Your task to perform on an android device: Play the last video I watched on Youtube Image 0: 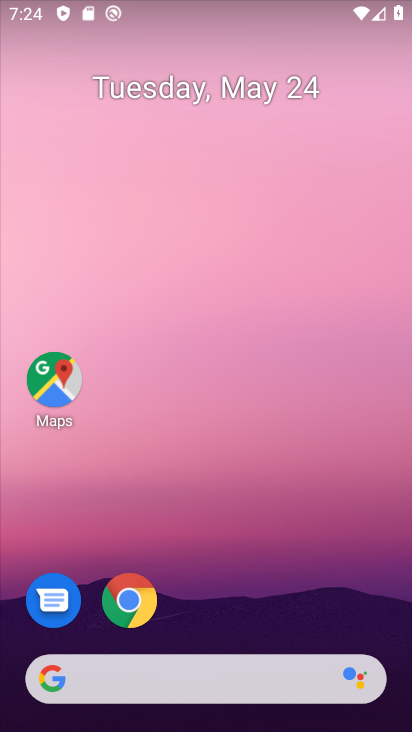
Step 0: drag from (203, 588) to (285, 24)
Your task to perform on an android device: Play the last video I watched on Youtube Image 1: 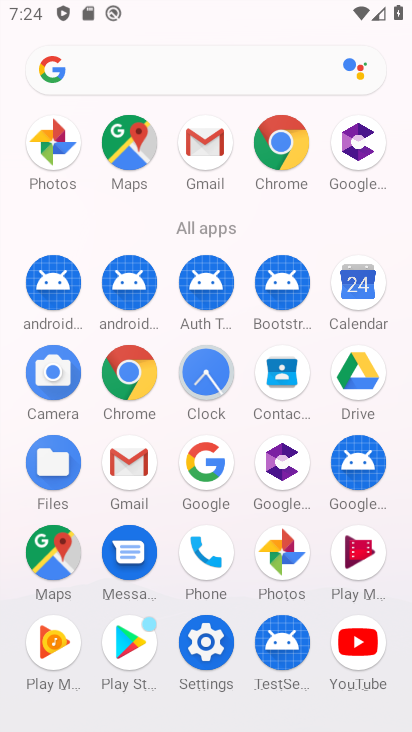
Step 1: click (358, 638)
Your task to perform on an android device: Play the last video I watched on Youtube Image 2: 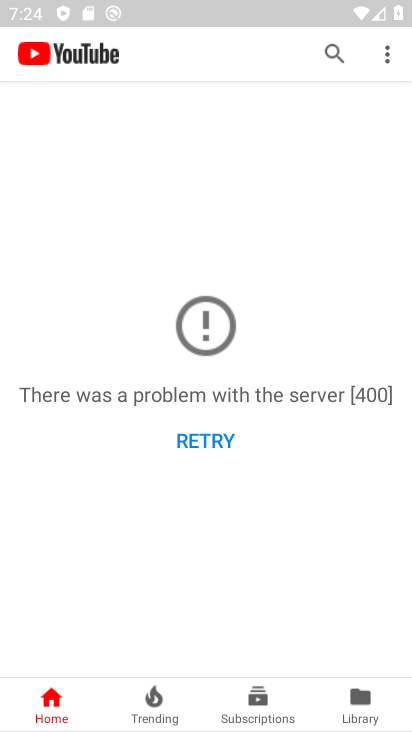
Step 2: click (380, 702)
Your task to perform on an android device: Play the last video I watched on Youtube Image 3: 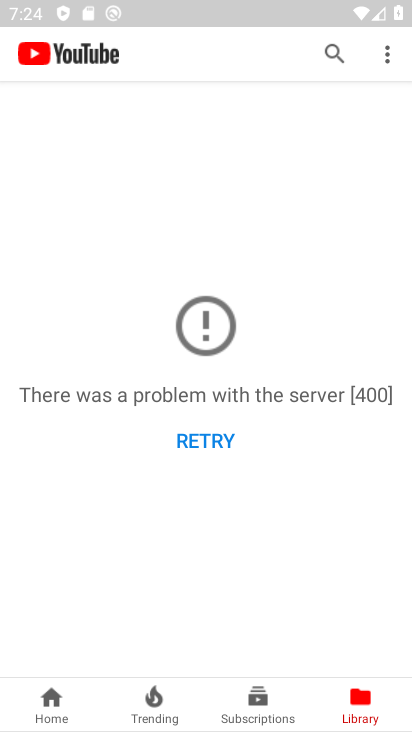
Step 3: task complete